Your task to perform on an android device: open app "Google Pay: Save, Pay, Manage" Image 0: 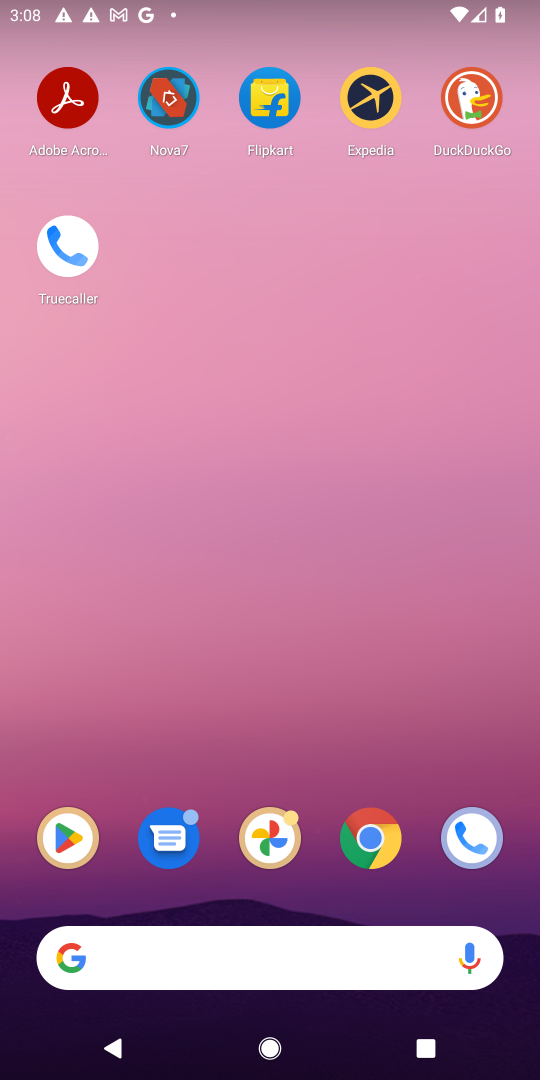
Step 0: click (61, 826)
Your task to perform on an android device: open app "Google Pay: Save, Pay, Manage" Image 1: 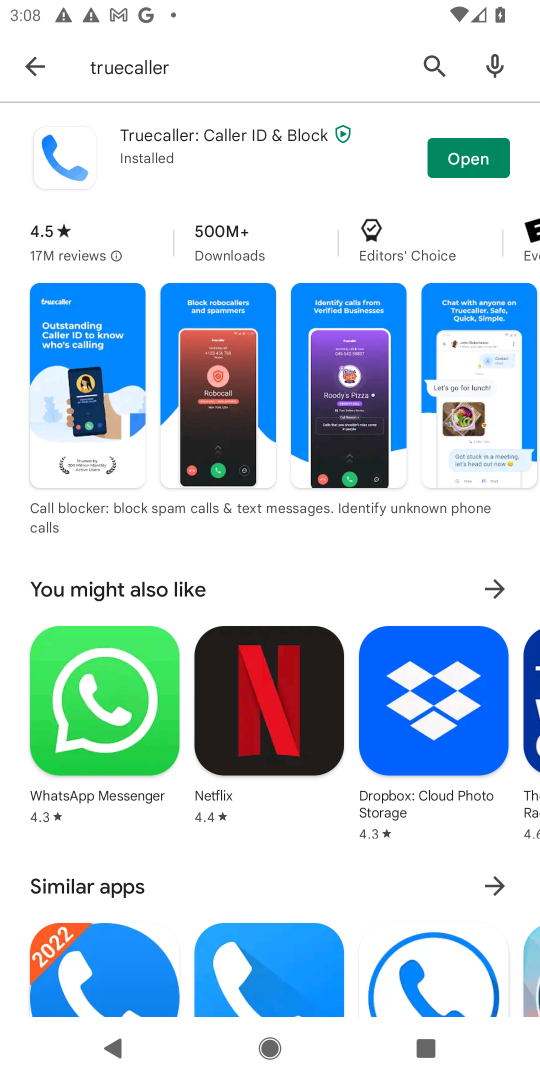
Step 1: click (432, 67)
Your task to perform on an android device: open app "Google Pay: Save, Pay, Manage" Image 2: 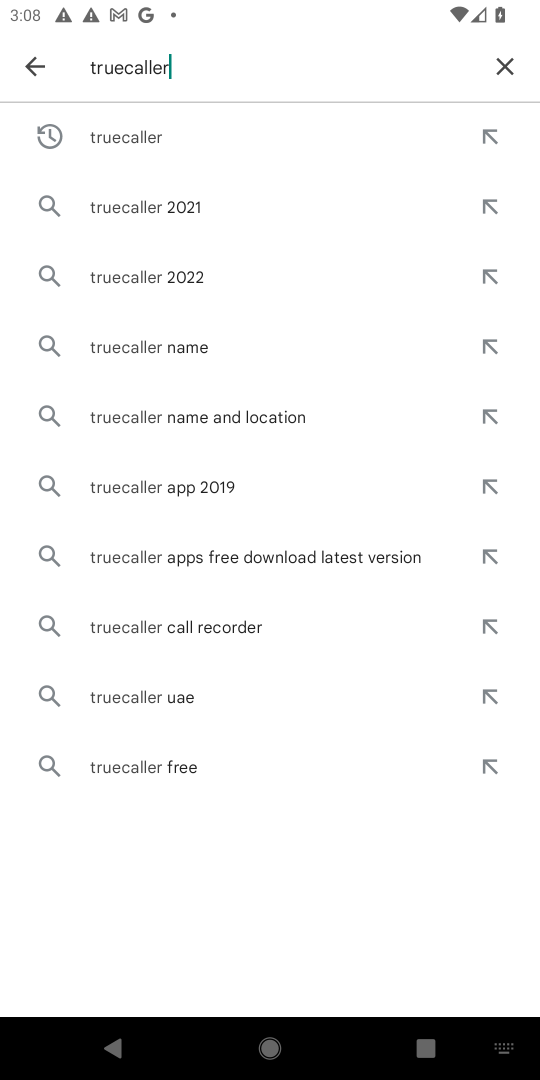
Step 2: click (501, 67)
Your task to perform on an android device: open app "Google Pay: Save, Pay, Manage" Image 3: 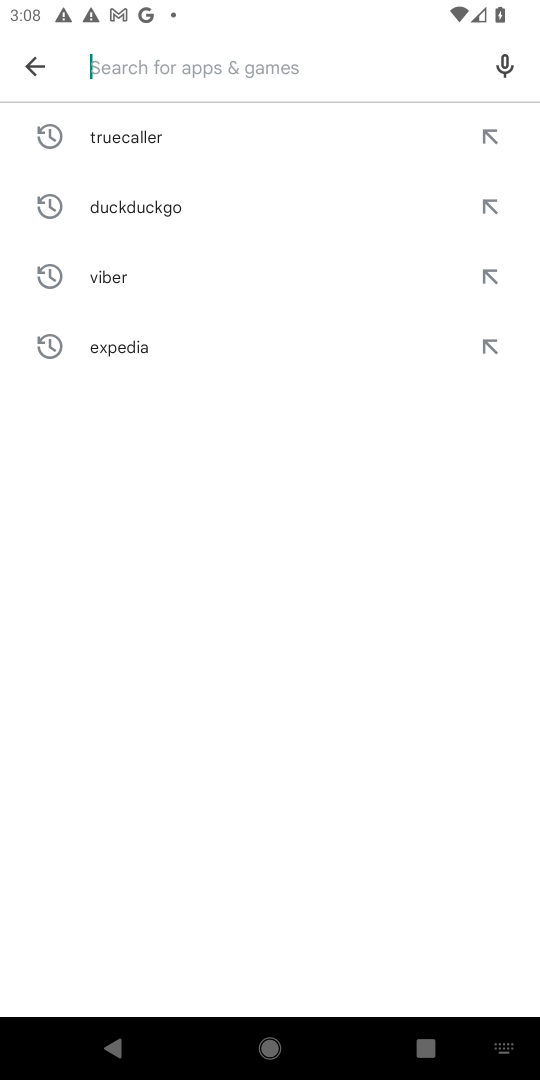
Step 3: type "google pay"
Your task to perform on an android device: open app "Google Pay: Save, Pay, Manage" Image 4: 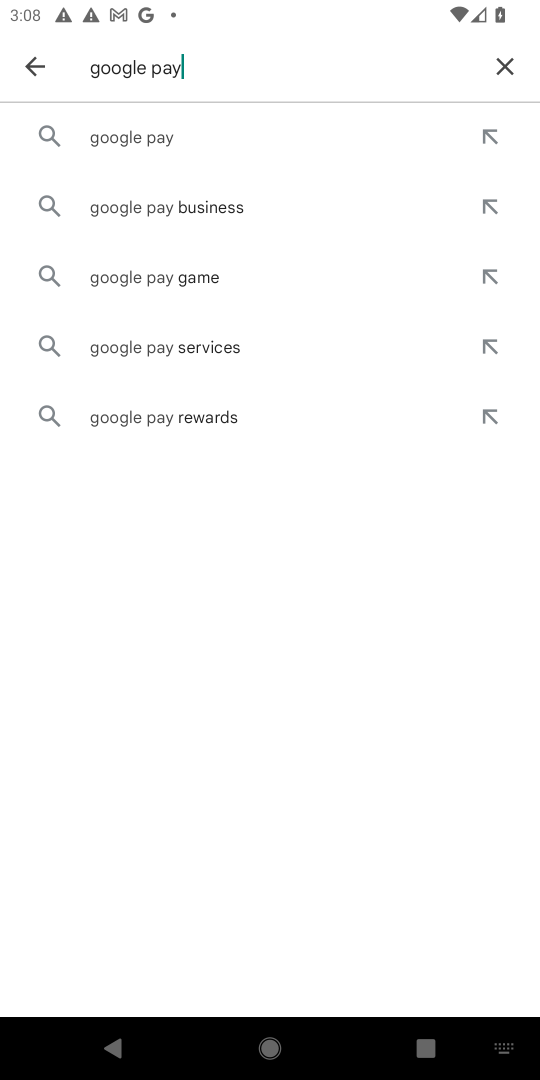
Step 4: click (180, 133)
Your task to perform on an android device: open app "Google Pay: Save, Pay, Manage" Image 5: 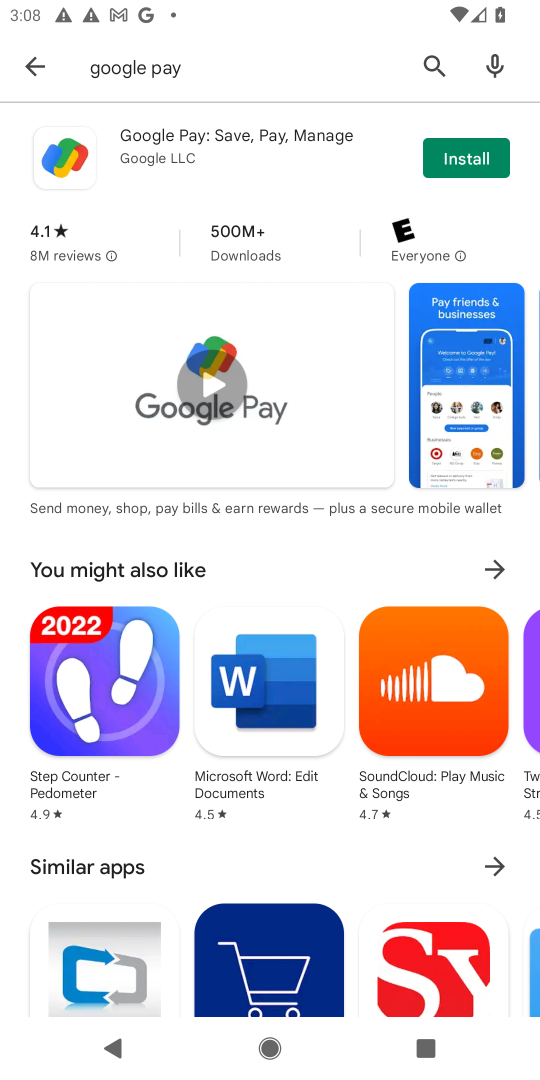
Step 5: click (455, 158)
Your task to perform on an android device: open app "Google Pay: Save, Pay, Manage" Image 6: 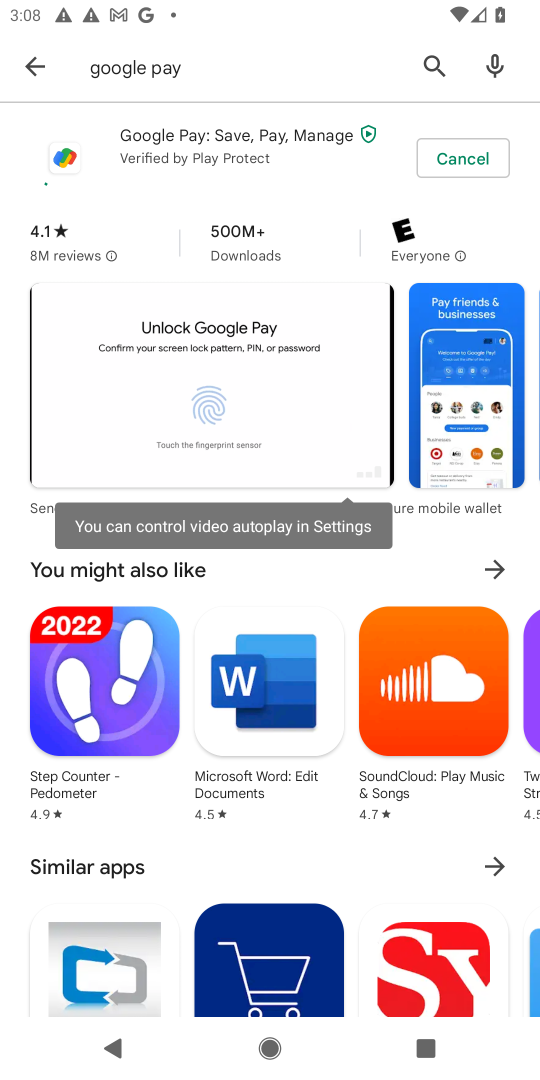
Step 6: click (455, 159)
Your task to perform on an android device: open app "Google Pay: Save, Pay, Manage" Image 7: 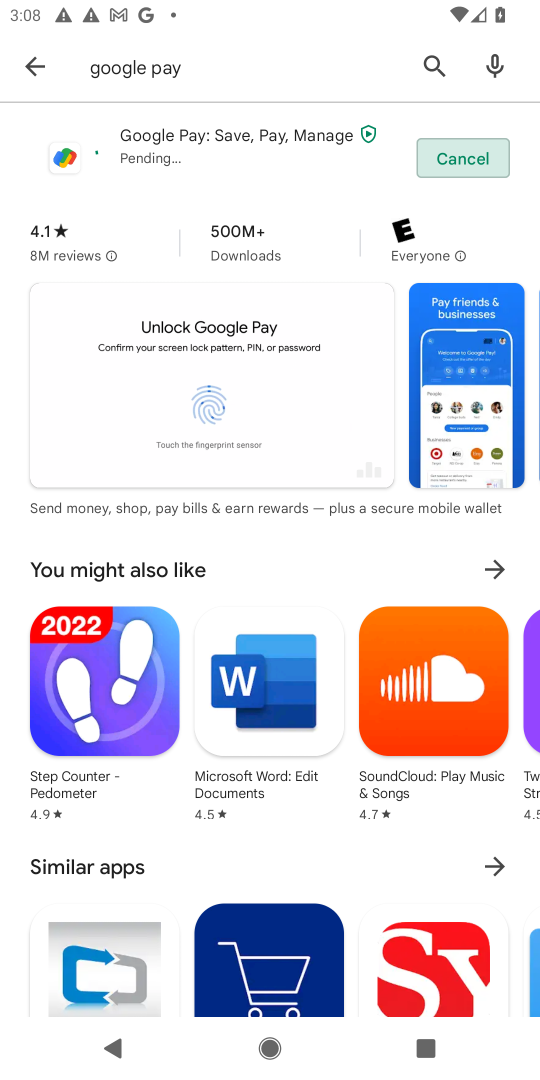
Step 7: task complete